Your task to perform on an android device: see sites visited before in the chrome app Image 0: 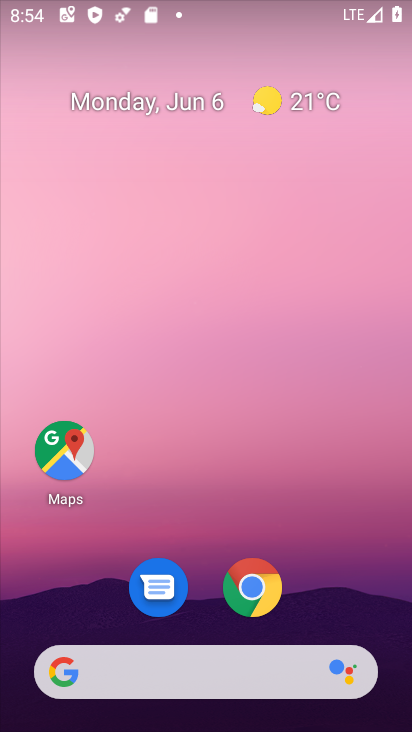
Step 0: click (251, 601)
Your task to perform on an android device: see sites visited before in the chrome app Image 1: 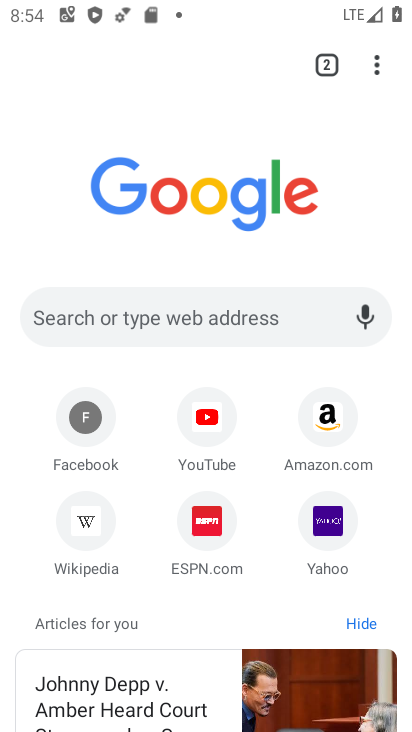
Step 1: click (375, 63)
Your task to perform on an android device: see sites visited before in the chrome app Image 2: 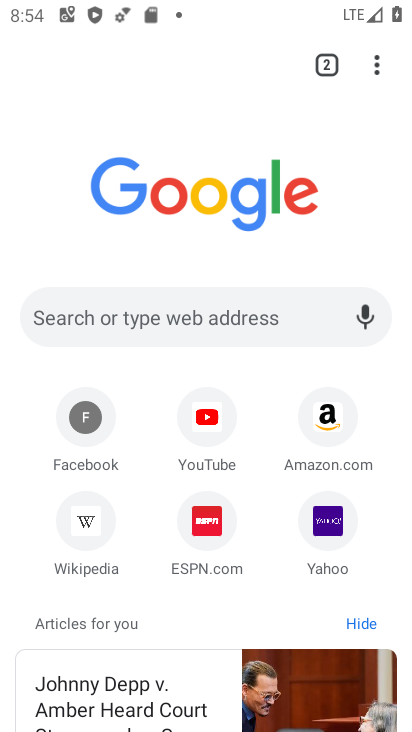
Step 2: click (375, 63)
Your task to perform on an android device: see sites visited before in the chrome app Image 3: 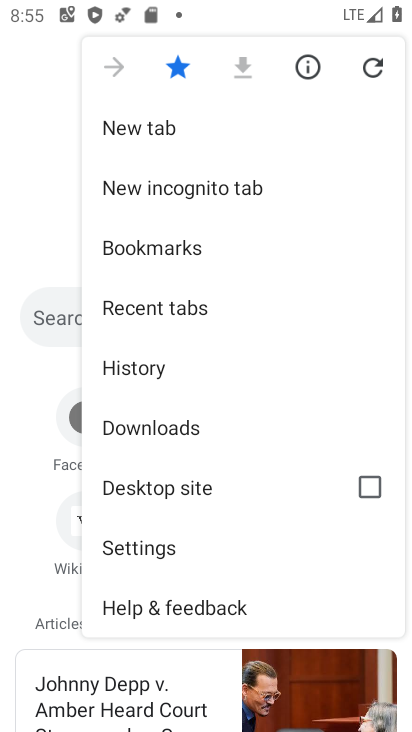
Step 3: click (180, 310)
Your task to perform on an android device: see sites visited before in the chrome app Image 4: 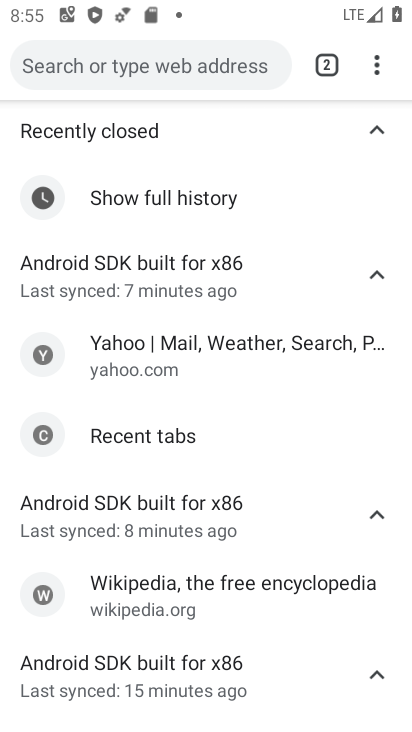
Step 4: task complete